Your task to perform on an android device: move an email to a new category in the gmail app Image 0: 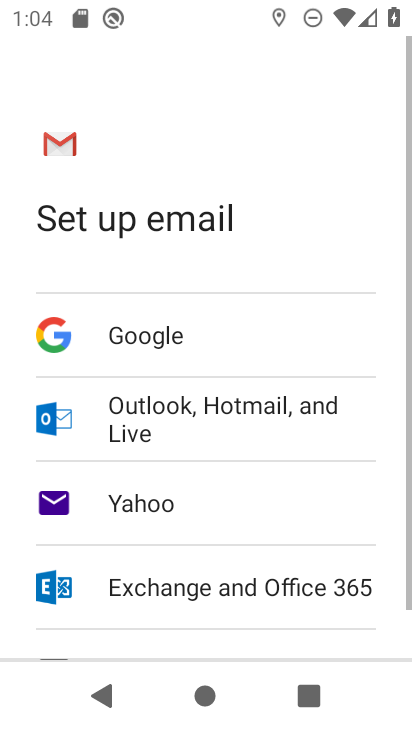
Step 0: press home button
Your task to perform on an android device: move an email to a new category in the gmail app Image 1: 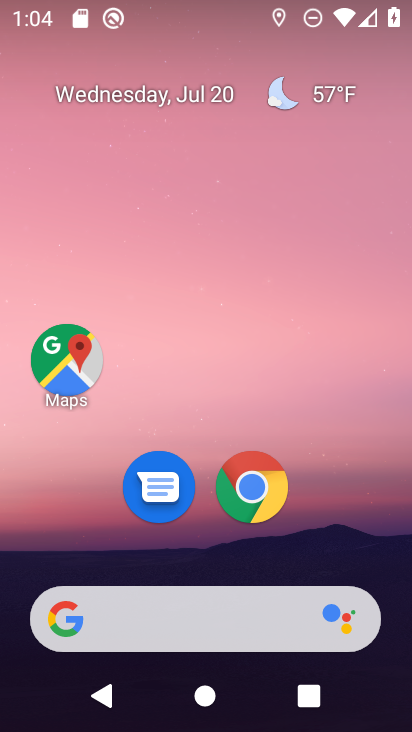
Step 1: drag from (331, 539) to (350, 178)
Your task to perform on an android device: move an email to a new category in the gmail app Image 2: 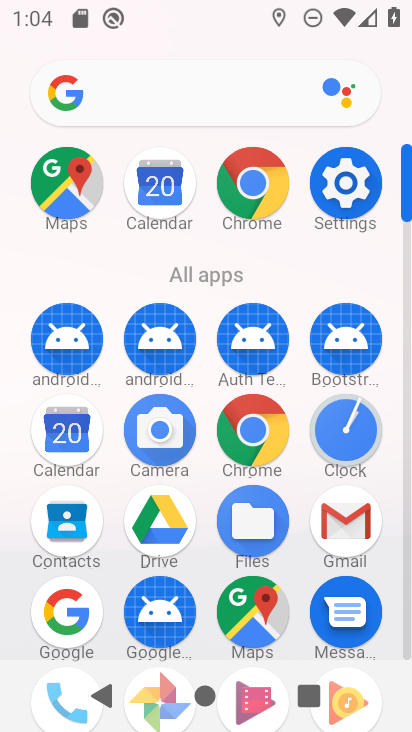
Step 2: click (345, 514)
Your task to perform on an android device: move an email to a new category in the gmail app Image 3: 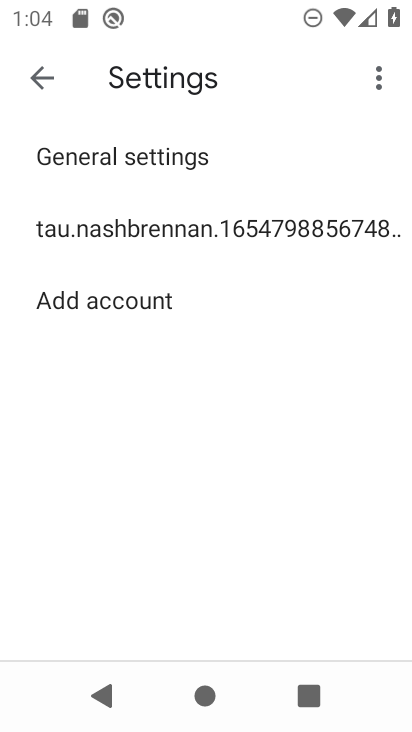
Step 3: press back button
Your task to perform on an android device: move an email to a new category in the gmail app Image 4: 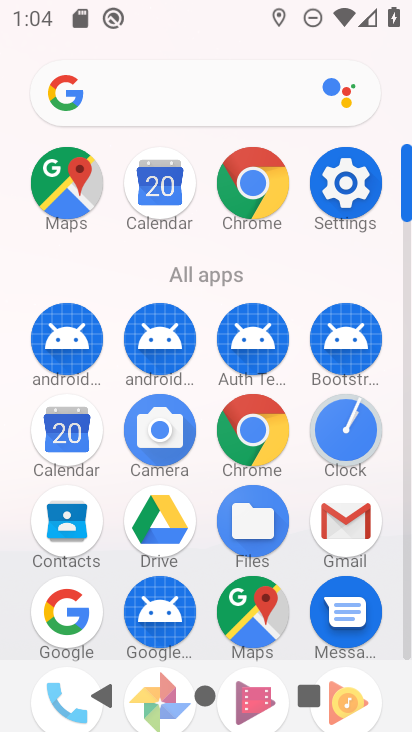
Step 4: click (367, 511)
Your task to perform on an android device: move an email to a new category in the gmail app Image 5: 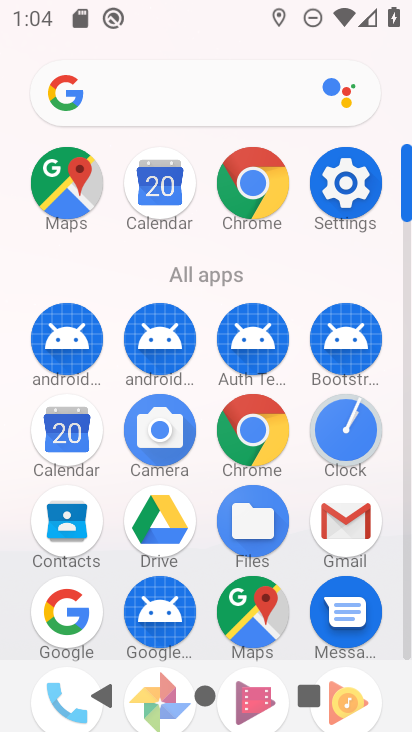
Step 5: click (340, 523)
Your task to perform on an android device: move an email to a new category in the gmail app Image 6: 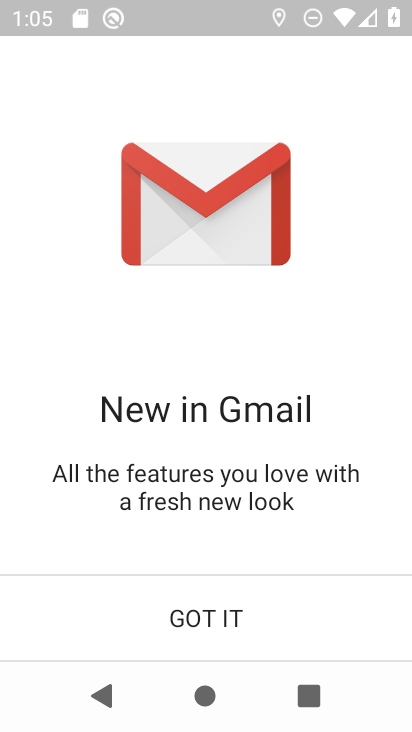
Step 6: click (271, 614)
Your task to perform on an android device: move an email to a new category in the gmail app Image 7: 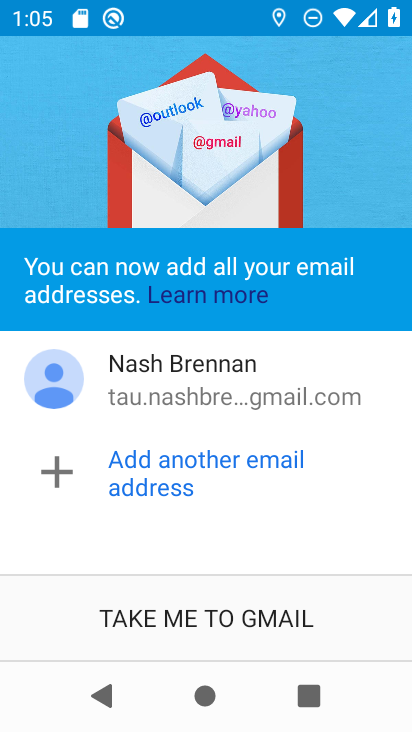
Step 7: click (271, 614)
Your task to perform on an android device: move an email to a new category in the gmail app Image 8: 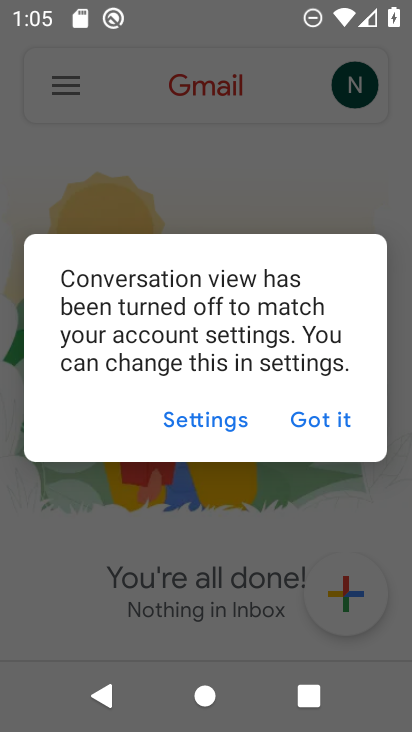
Step 8: click (316, 426)
Your task to perform on an android device: move an email to a new category in the gmail app Image 9: 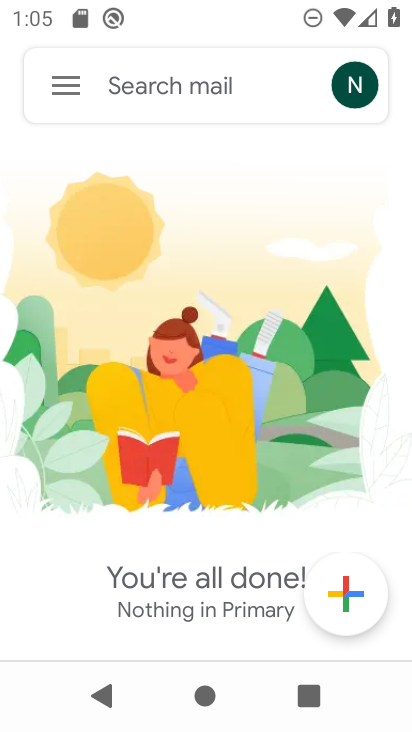
Step 9: task complete